Your task to perform on an android device: Open battery settings Image 0: 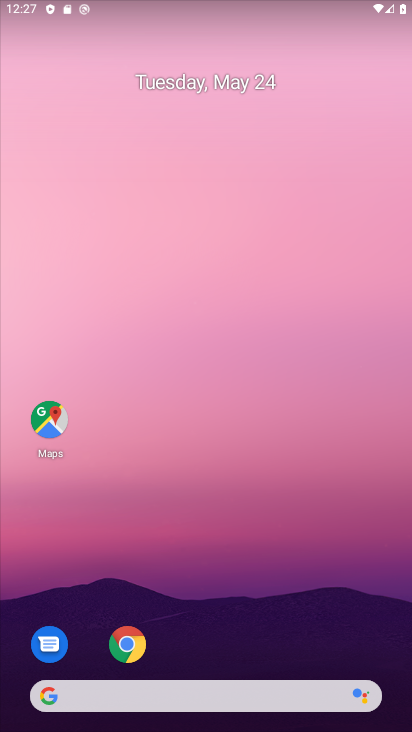
Step 0: drag from (191, 621) to (313, 0)
Your task to perform on an android device: Open battery settings Image 1: 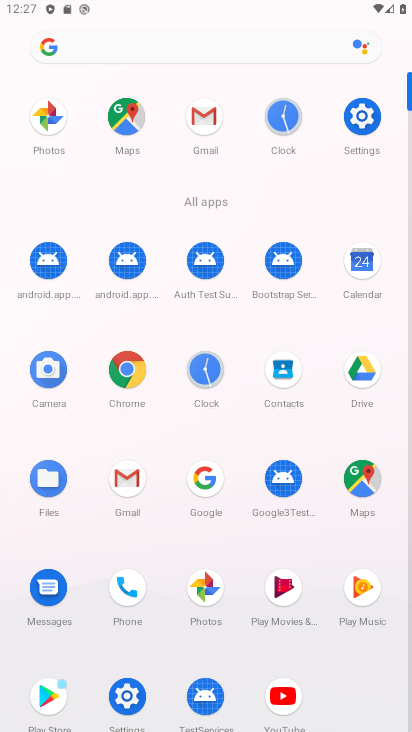
Step 1: drag from (184, 641) to (248, 336)
Your task to perform on an android device: Open battery settings Image 2: 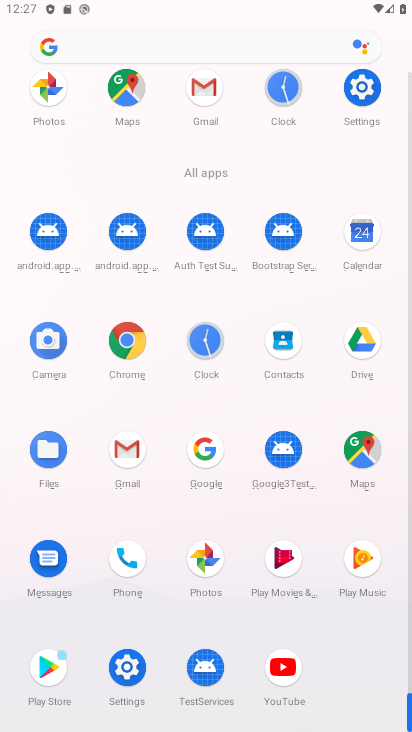
Step 2: click (119, 662)
Your task to perform on an android device: Open battery settings Image 3: 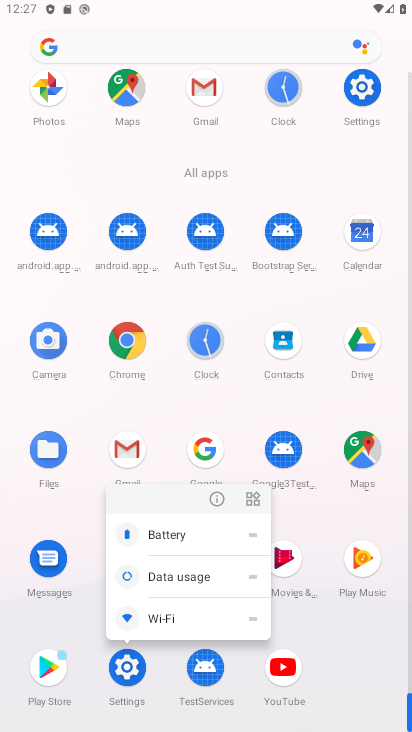
Step 3: click (122, 682)
Your task to perform on an android device: Open battery settings Image 4: 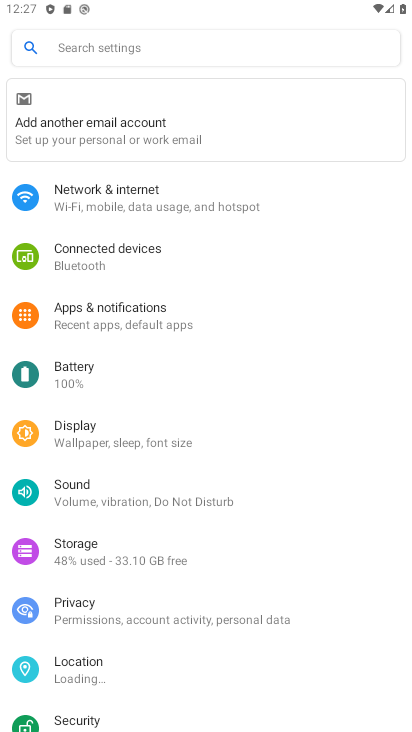
Step 4: click (142, 374)
Your task to perform on an android device: Open battery settings Image 5: 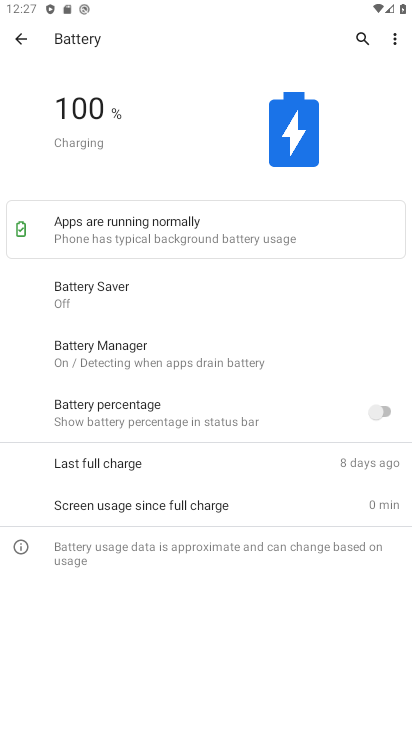
Step 5: task complete